Your task to perform on an android device: delete location history Image 0: 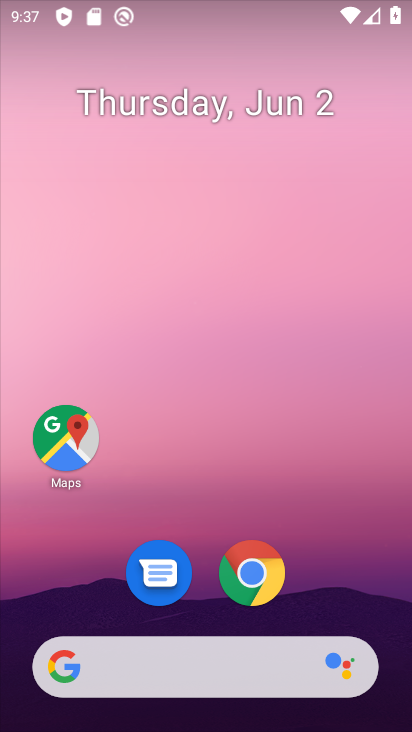
Step 0: click (251, 575)
Your task to perform on an android device: delete location history Image 1: 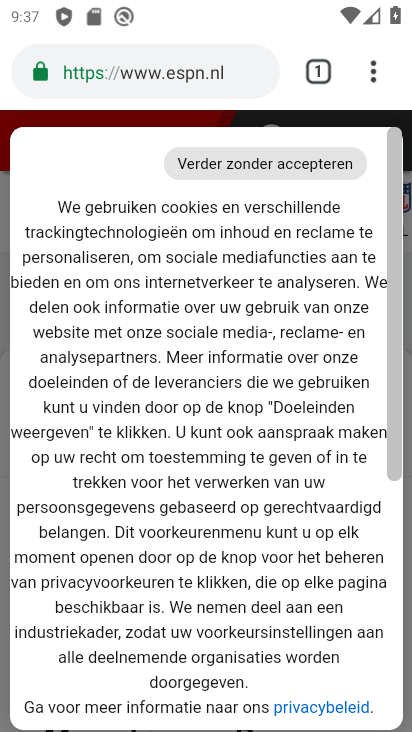
Step 1: drag from (374, 61) to (391, 385)
Your task to perform on an android device: delete location history Image 2: 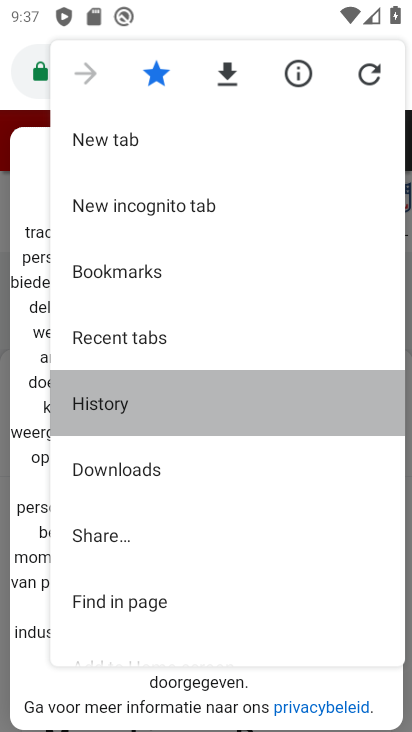
Step 2: press home button
Your task to perform on an android device: delete location history Image 3: 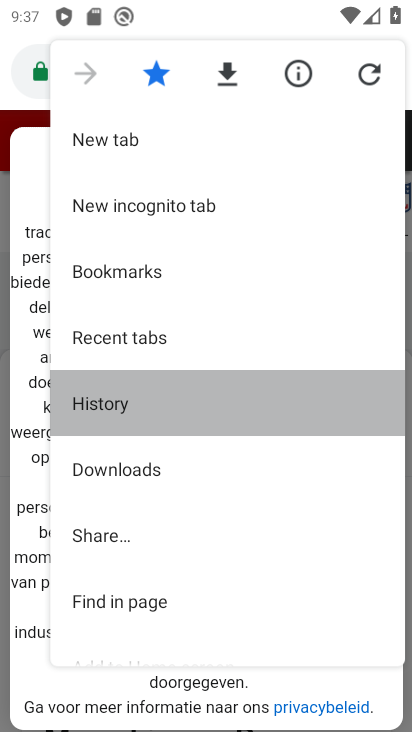
Step 3: drag from (391, 385) to (407, 256)
Your task to perform on an android device: delete location history Image 4: 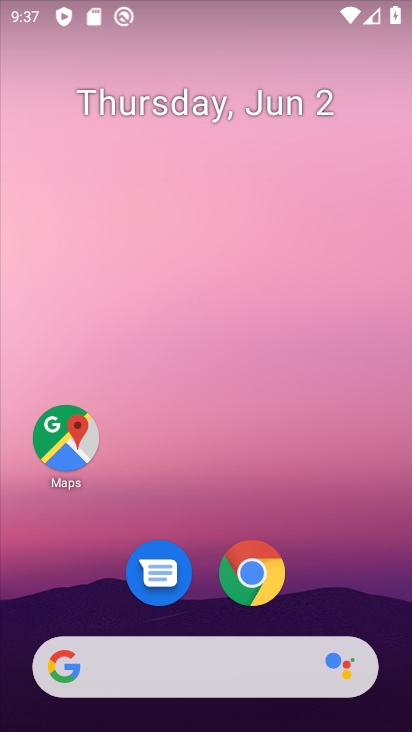
Step 4: click (52, 425)
Your task to perform on an android device: delete location history Image 5: 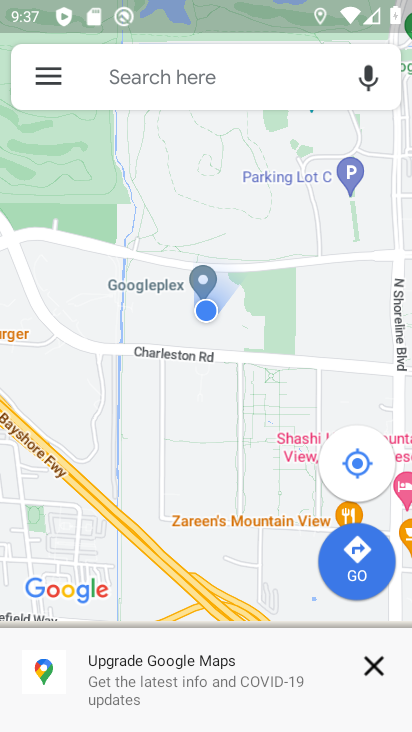
Step 5: click (51, 67)
Your task to perform on an android device: delete location history Image 6: 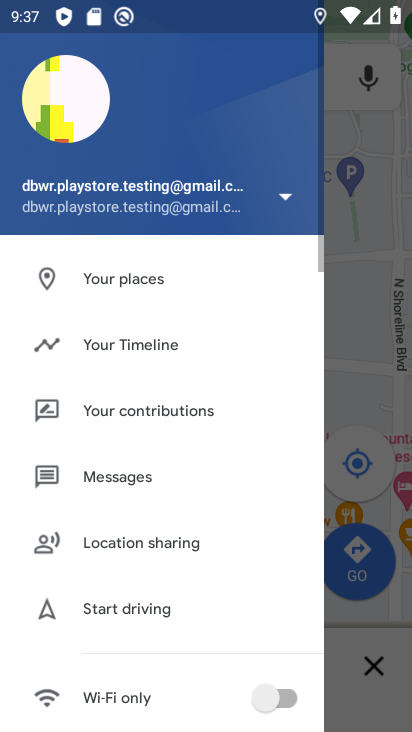
Step 6: drag from (111, 565) to (208, 69)
Your task to perform on an android device: delete location history Image 7: 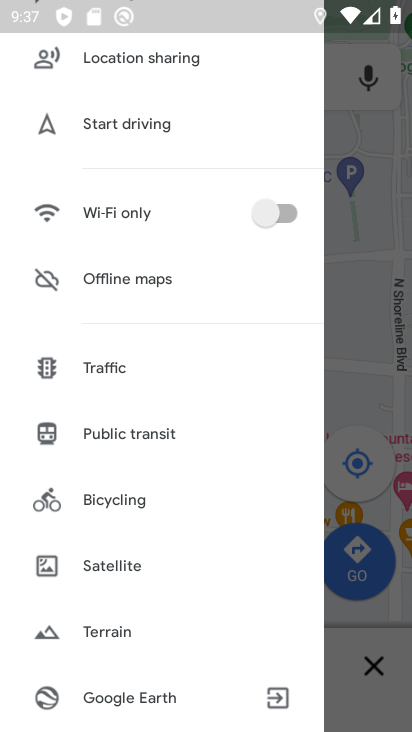
Step 7: drag from (159, 600) to (233, 113)
Your task to perform on an android device: delete location history Image 8: 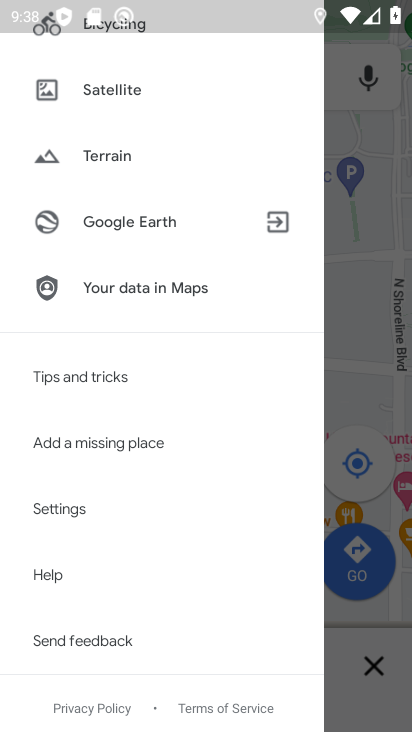
Step 8: click (79, 510)
Your task to perform on an android device: delete location history Image 9: 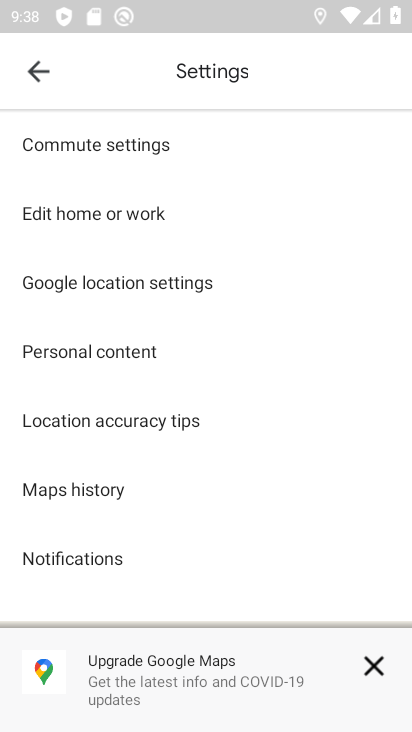
Step 9: click (94, 483)
Your task to perform on an android device: delete location history Image 10: 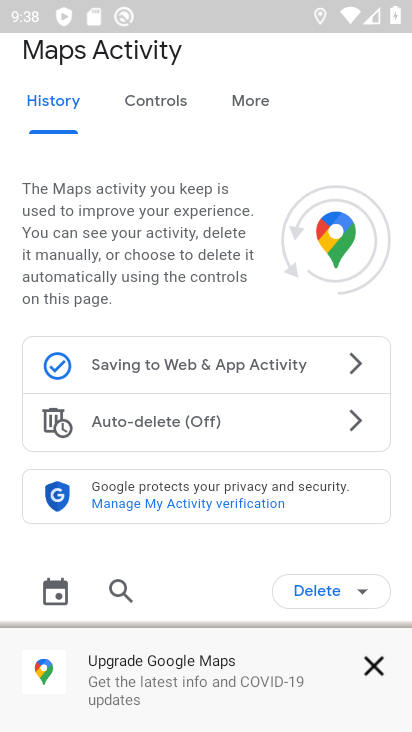
Step 10: click (336, 594)
Your task to perform on an android device: delete location history Image 11: 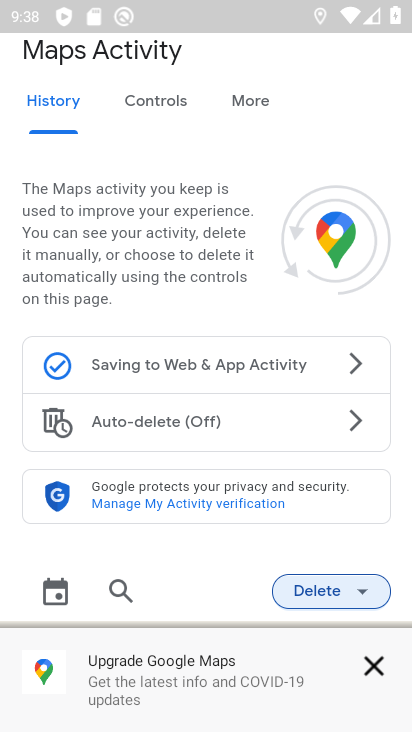
Step 11: click (336, 594)
Your task to perform on an android device: delete location history Image 12: 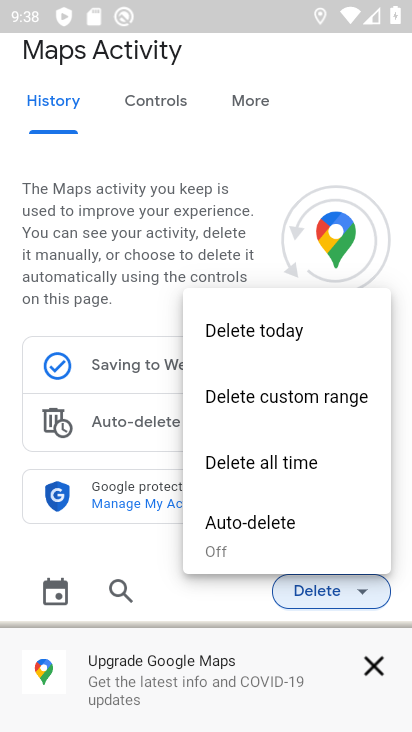
Step 12: click (278, 469)
Your task to perform on an android device: delete location history Image 13: 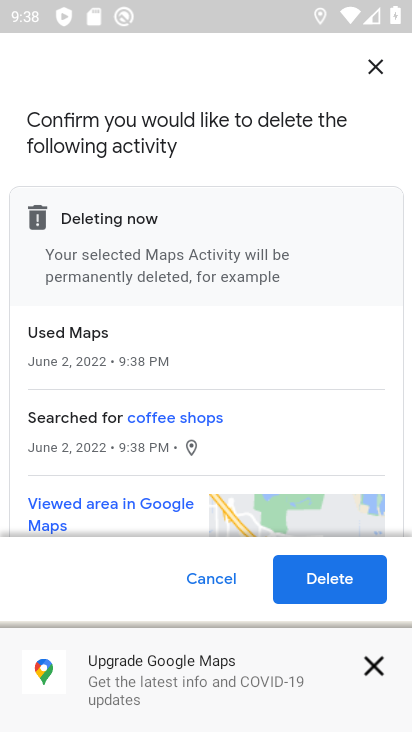
Step 13: click (338, 576)
Your task to perform on an android device: delete location history Image 14: 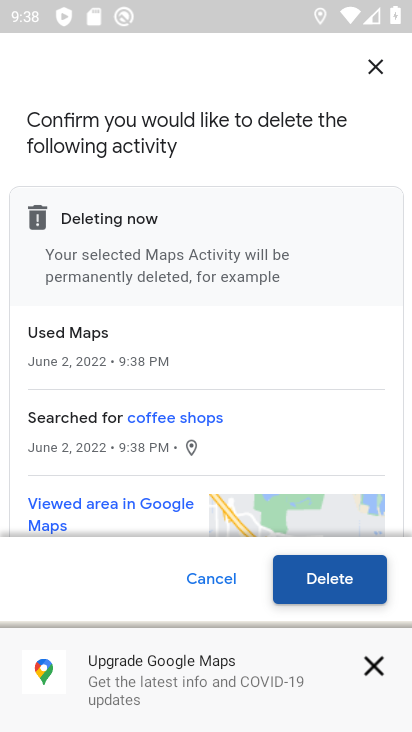
Step 14: click (315, 580)
Your task to perform on an android device: delete location history Image 15: 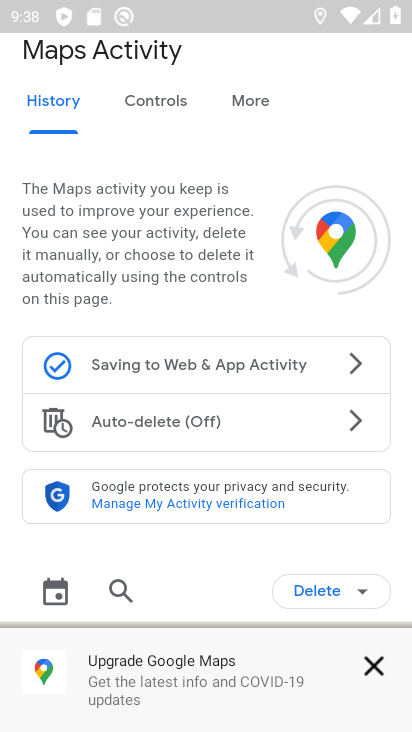
Step 15: click (327, 573)
Your task to perform on an android device: delete location history Image 16: 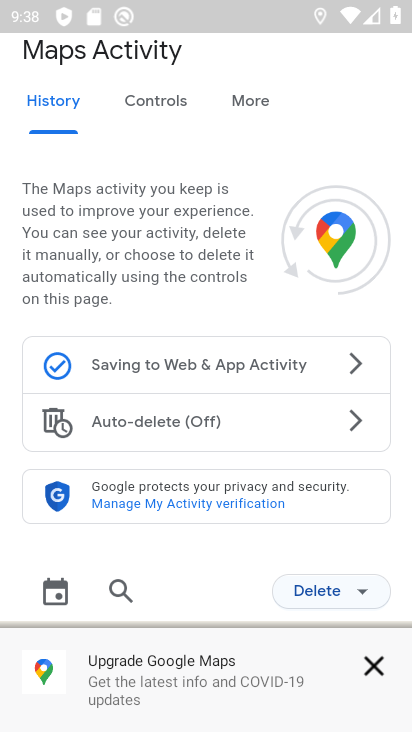
Step 16: click (323, 583)
Your task to perform on an android device: delete location history Image 17: 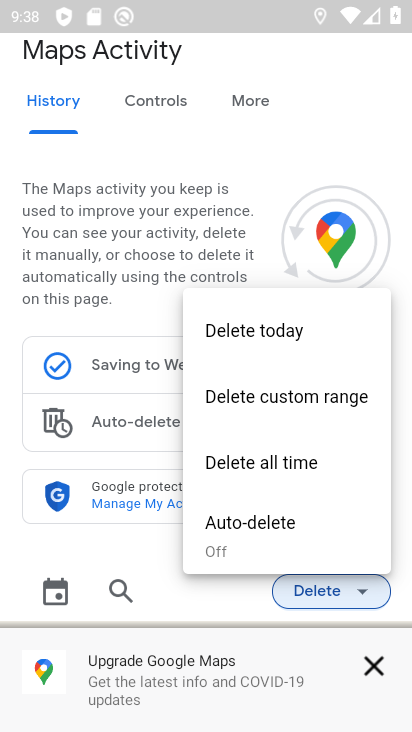
Step 17: click (299, 462)
Your task to perform on an android device: delete location history Image 18: 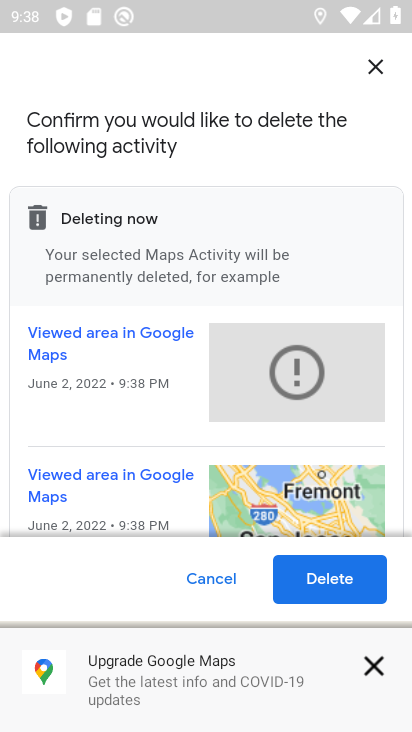
Step 18: click (337, 585)
Your task to perform on an android device: delete location history Image 19: 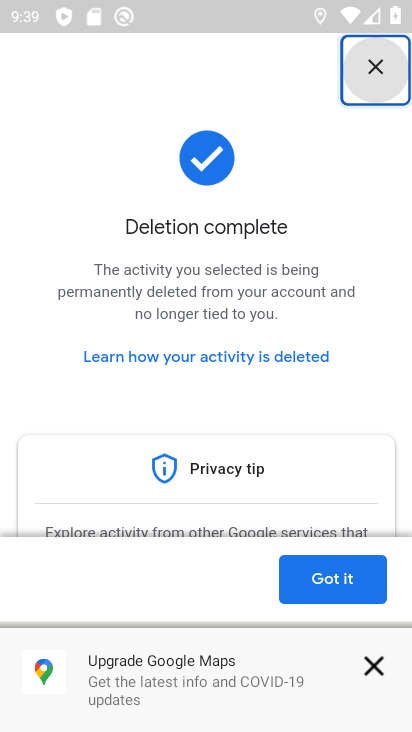
Step 19: task complete